Your task to perform on an android device: read, delete, or share a saved page in the chrome app Image 0: 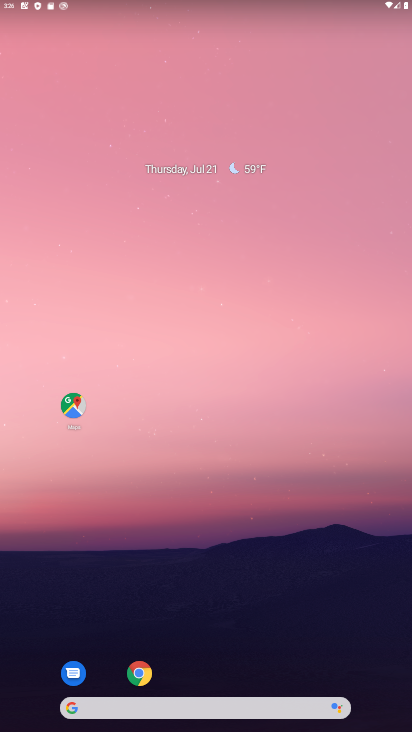
Step 0: click (140, 676)
Your task to perform on an android device: read, delete, or share a saved page in the chrome app Image 1: 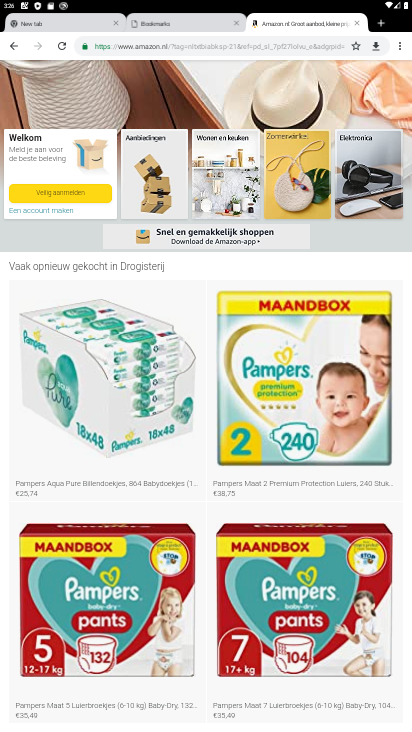
Step 1: click (398, 50)
Your task to perform on an android device: read, delete, or share a saved page in the chrome app Image 2: 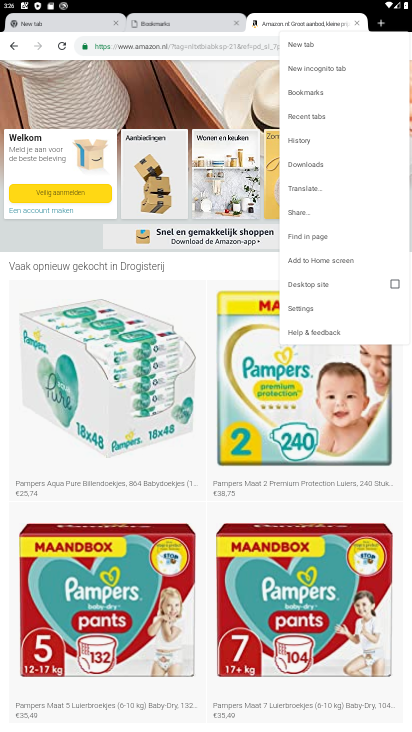
Step 2: click (307, 165)
Your task to perform on an android device: read, delete, or share a saved page in the chrome app Image 3: 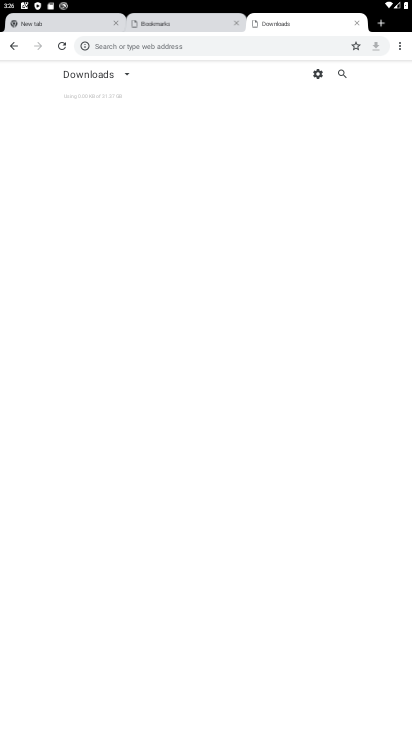
Step 3: click (124, 74)
Your task to perform on an android device: read, delete, or share a saved page in the chrome app Image 4: 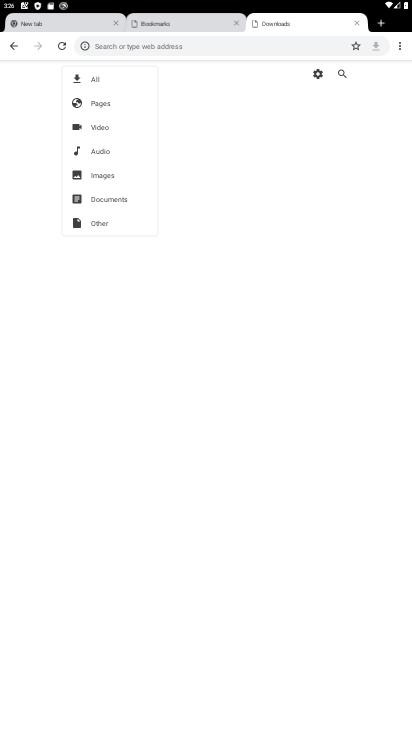
Step 4: click (100, 104)
Your task to perform on an android device: read, delete, or share a saved page in the chrome app Image 5: 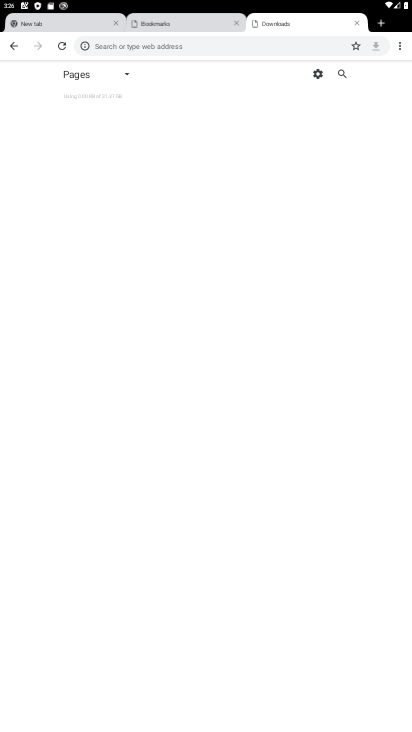
Step 5: task complete